Your task to perform on an android device: turn off wifi Image 0: 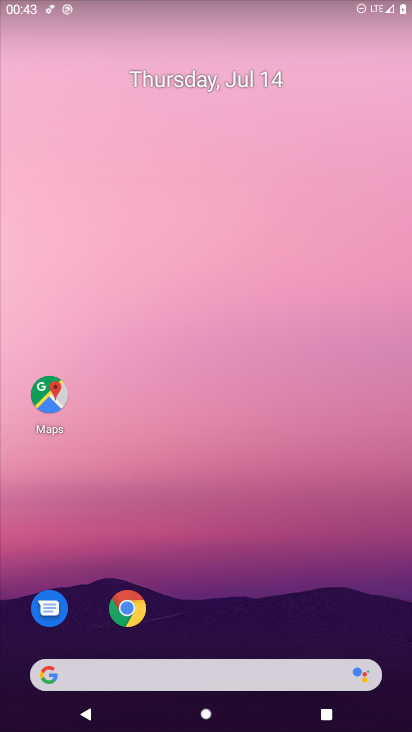
Step 0: press home button
Your task to perform on an android device: turn off wifi Image 1: 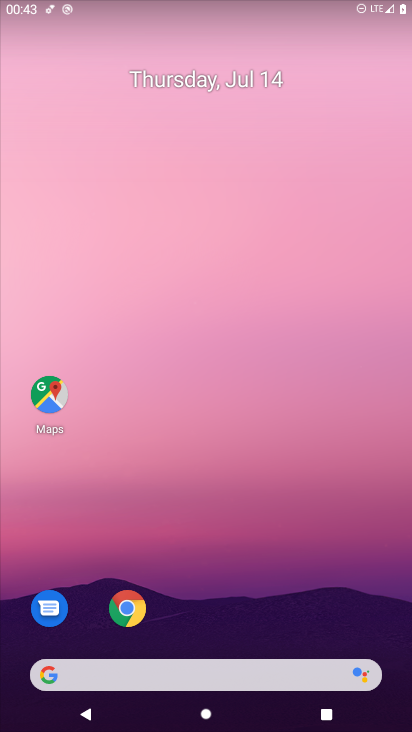
Step 1: task complete